Your task to perform on an android device: toggle show notifications on the lock screen Image 0: 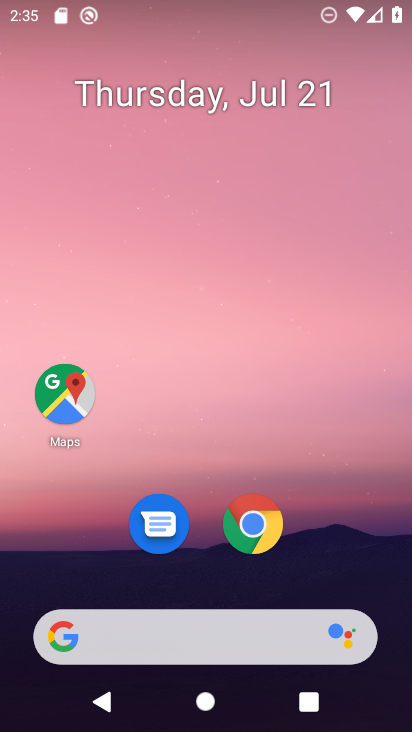
Step 0: drag from (203, 618) to (257, 50)
Your task to perform on an android device: toggle show notifications on the lock screen Image 1: 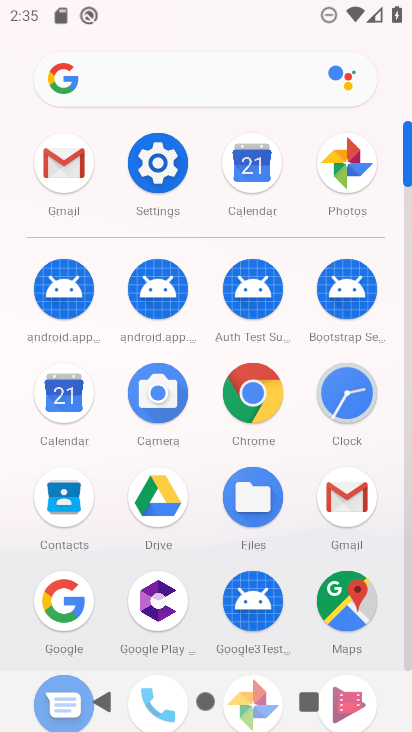
Step 1: click (173, 162)
Your task to perform on an android device: toggle show notifications on the lock screen Image 2: 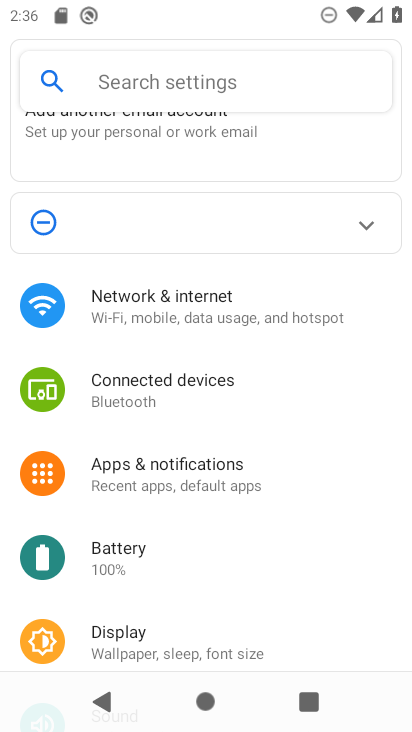
Step 2: click (188, 464)
Your task to perform on an android device: toggle show notifications on the lock screen Image 3: 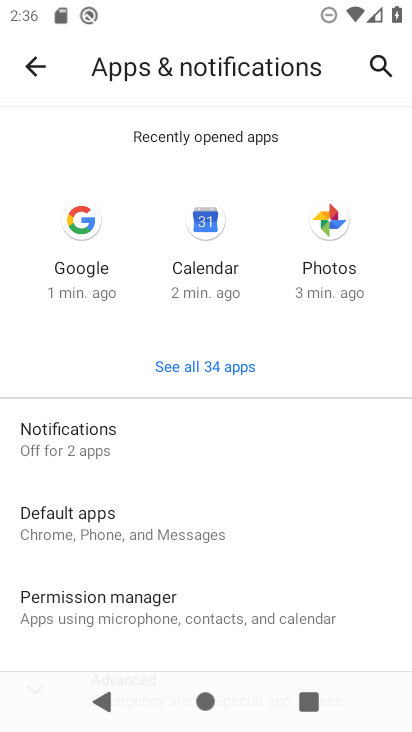
Step 3: click (101, 437)
Your task to perform on an android device: toggle show notifications on the lock screen Image 4: 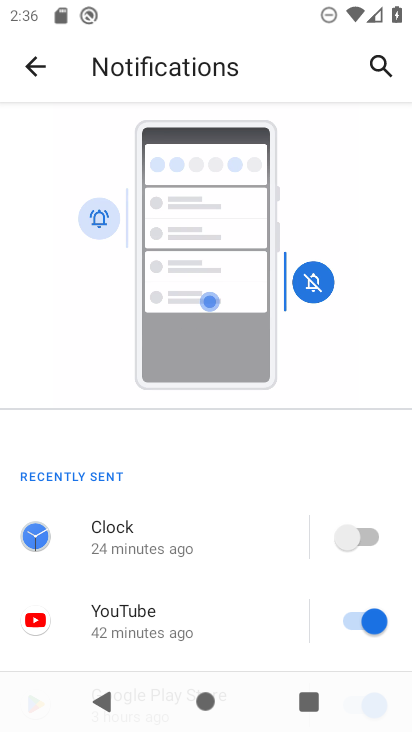
Step 4: drag from (208, 521) to (304, 276)
Your task to perform on an android device: toggle show notifications on the lock screen Image 5: 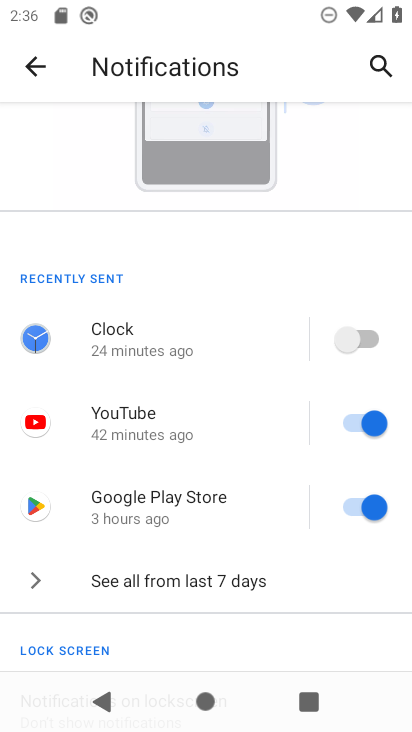
Step 5: drag from (286, 438) to (304, 82)
Your task to perform on an android device: toggle show notifications on the lock screen Image 6: 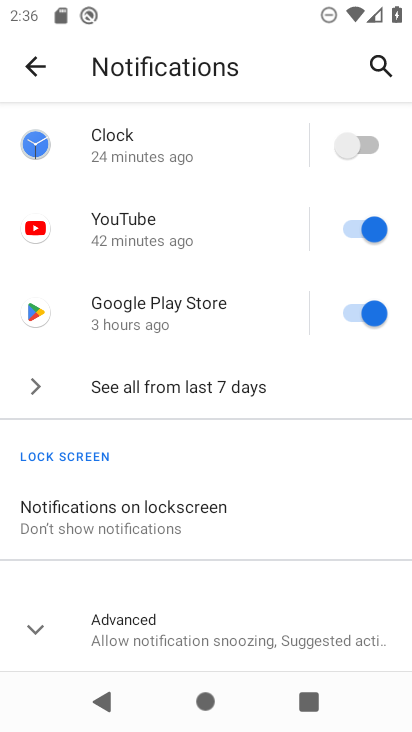
Step 6: click (175, 522)
Your task to perform on an android device: toggle show notifications on the lock screen Image 7: 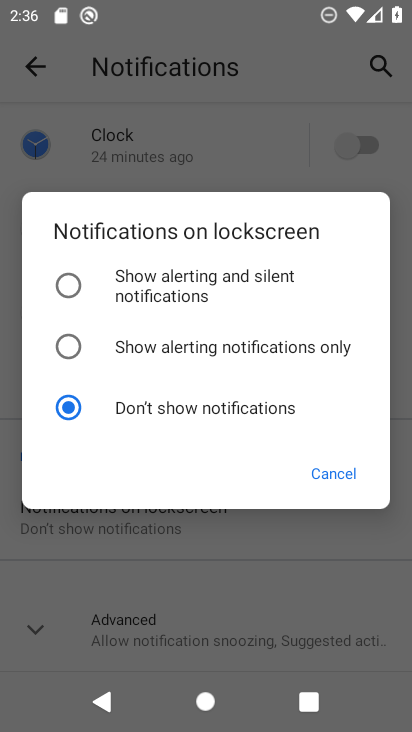
Step 7: click (68, 277)
Your task to perform on an android device: toggle show notifications on the lock screen Image 8: 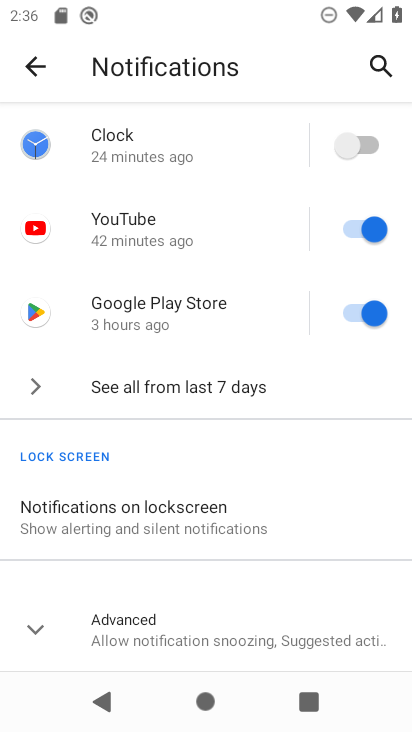
Step 8: task complete